Your task to perform on an android device: Search for sushi restaurants on Maps Image 0: 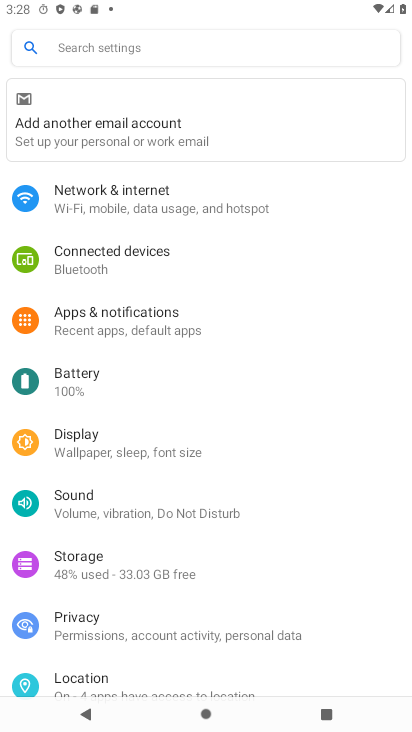
Step 0: press home button
Your task to perform on an android device: Search for sushi restaurants on Maps Image 1: 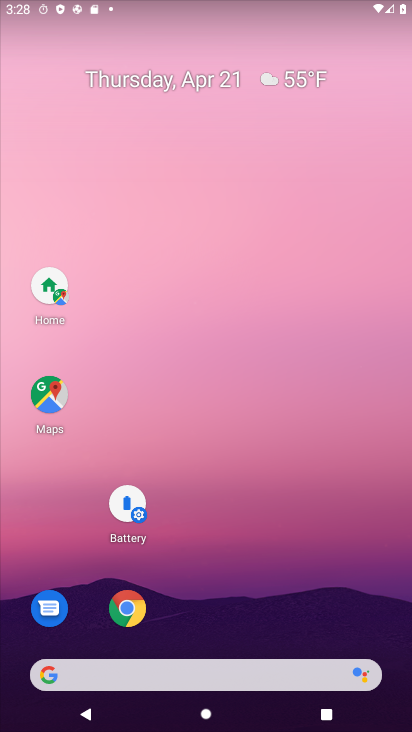
Step 1: click (52, 402)
Your task to perform on an android device: Search for sushi restaurants on Maps Image 2: 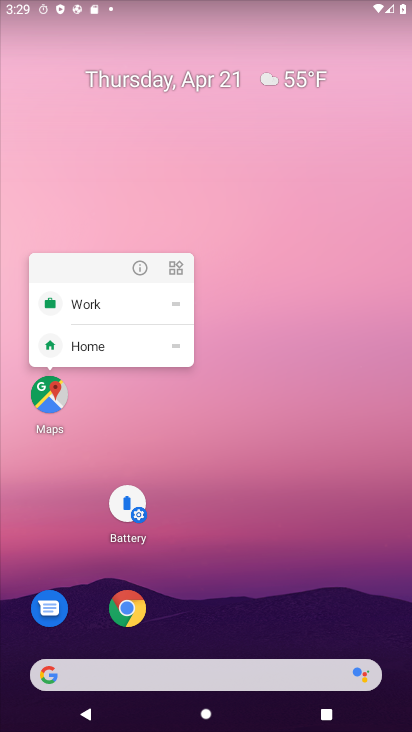
Step 2: click (53, 402)
Your task to perform on an android device: Search for sushi restaurants on Maps Image 3: 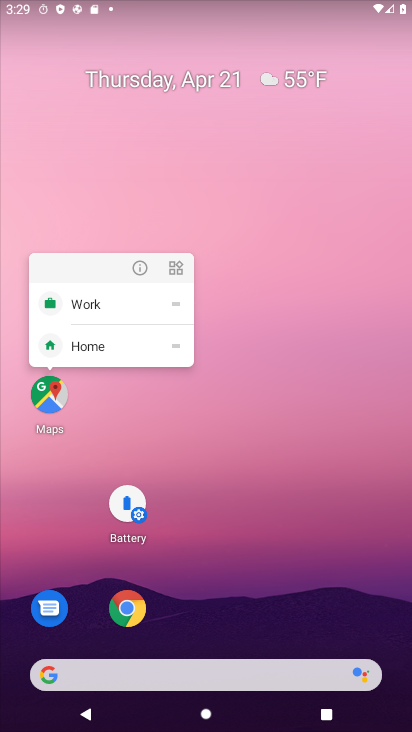
Step 3: click (53, 401)
Your task to perform on an android device: Search for sushi restaurants on Maps Image 4: 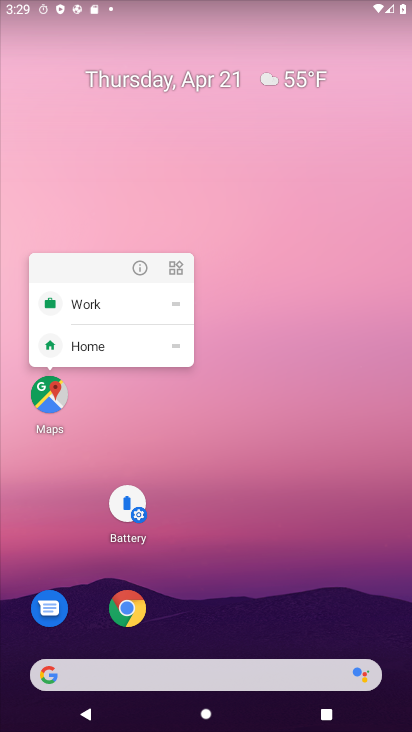
Step 4: click (53, 401)
Your task to perform on an android device: Search for sushi restaurants on Maps Image 5: 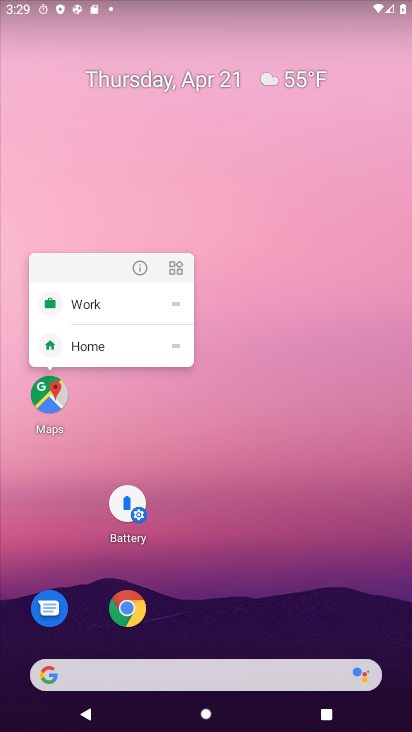
Step 5: click (53, 401)
Your task to perform on an android device: Search for sushi restaurants on Maps Image 6: 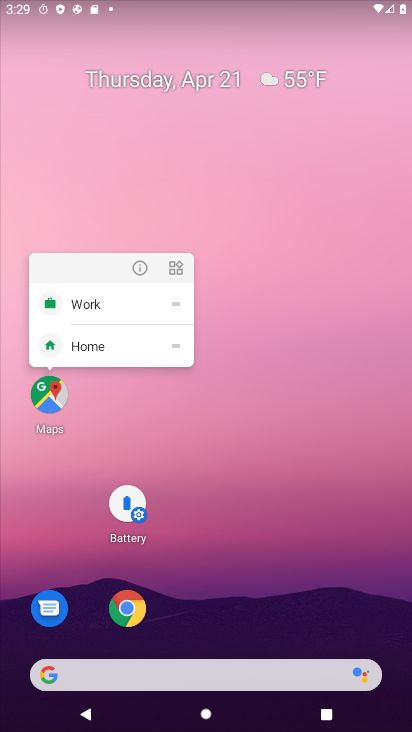
Step 6: click (48, 391)
Your task to perform on an android device: Search for sushi restaurants on Maps Image 7: 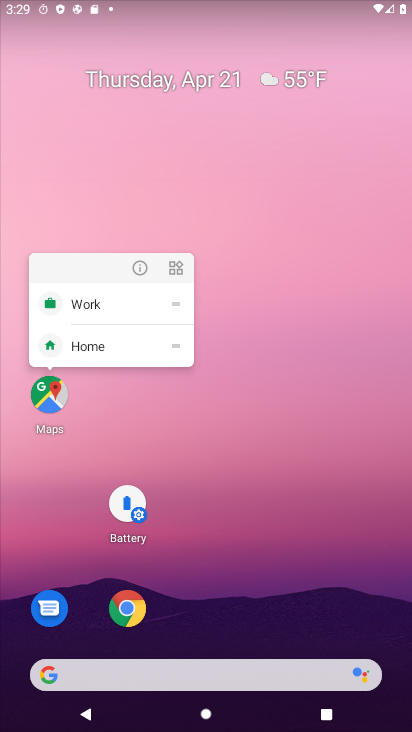
Step 7: click (48, 389)
Your task to perform on an android device: Search for sushi restaurants on Maps Image 8: 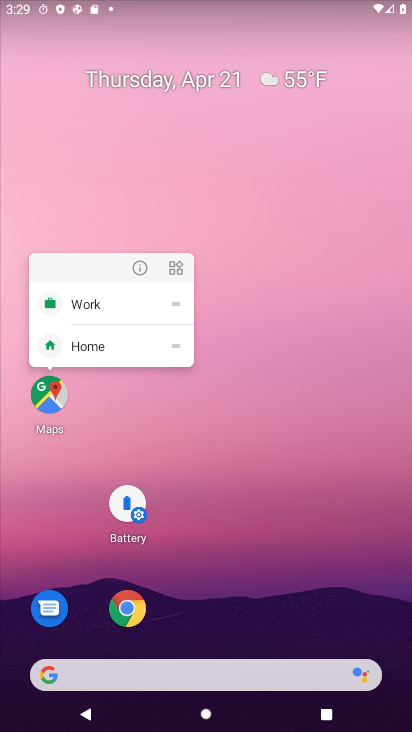
Step 8: click (48, 389)
Your task to perform on an android device: Search for sushi restaurants on Maps Image 9: 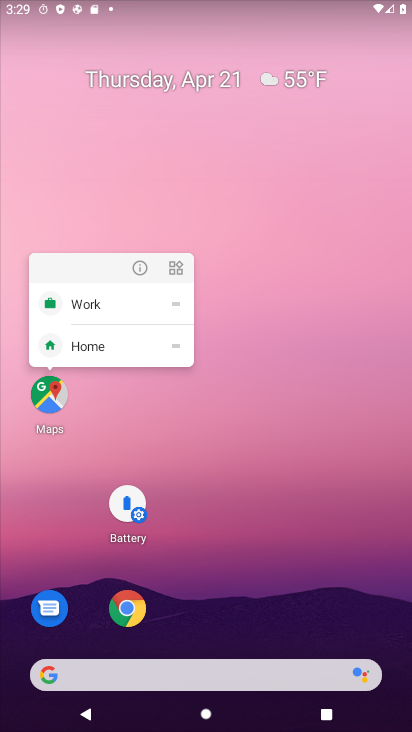
Step 9: click (48, 389)
Your task to perform on an android device: Search for sushi restaurants on Maps Image 10: 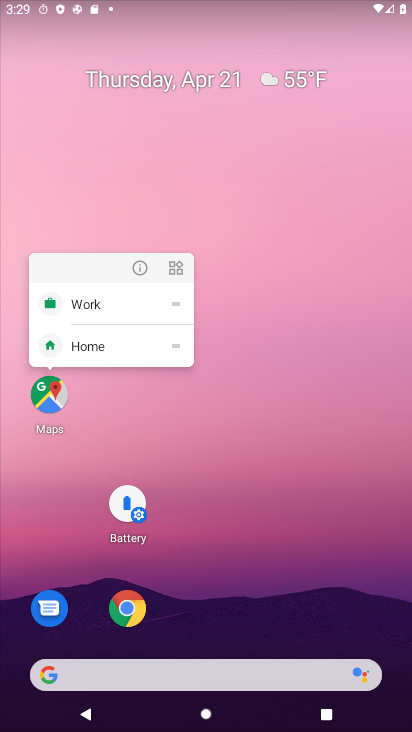
Step 10: click (48, 389)
Your task to perform on an android device: Search for sushi restaurants on Maps Image 11: 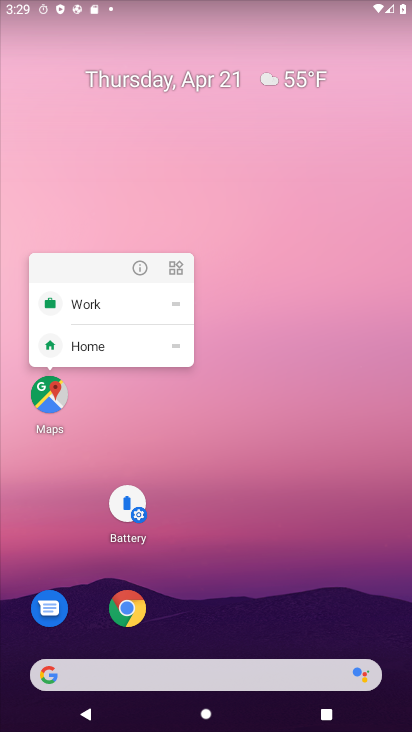
Step 11: click (48, 389)
Your task to perform on an android device: Search for sushi restaurants on Maps Image 12: 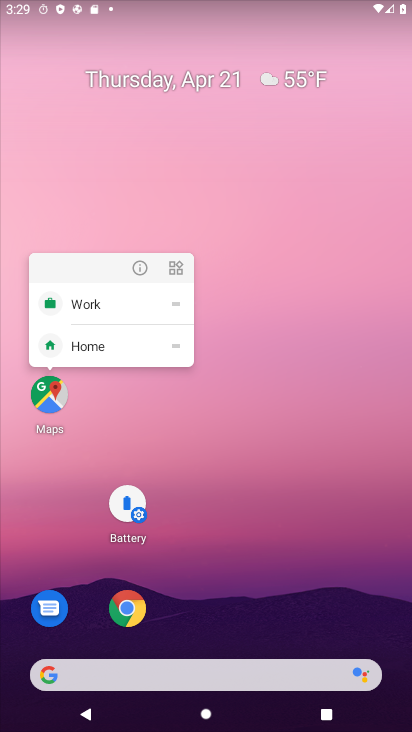
Step 12: click (48, 389)
Your task to perform on an android device: Search for sushi restaurants on Maps Image 13: 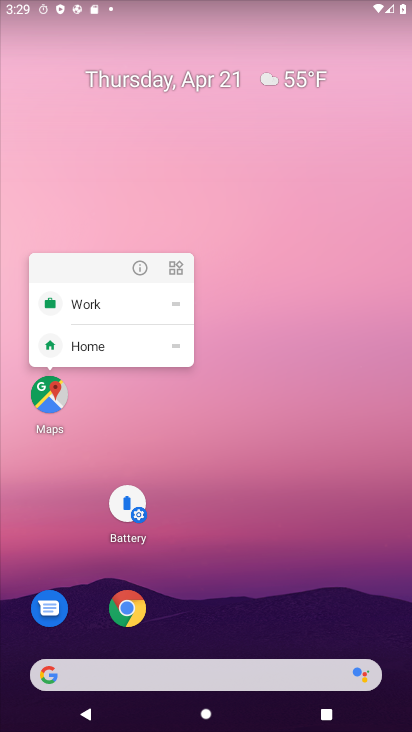
Step 13: click (48, 389)
Your task to perform on an android device: Search for sushi restaurants on Maps Image 14: 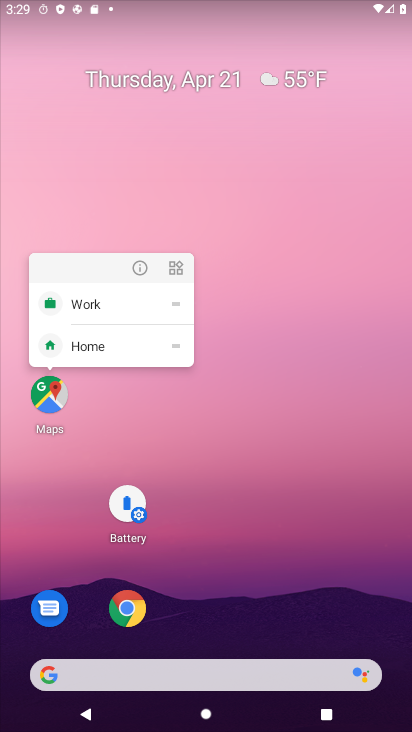
Step 14: click (48, 389)
Your task to perform on an android device: Search for sushi restaurants on Maps Image 15: 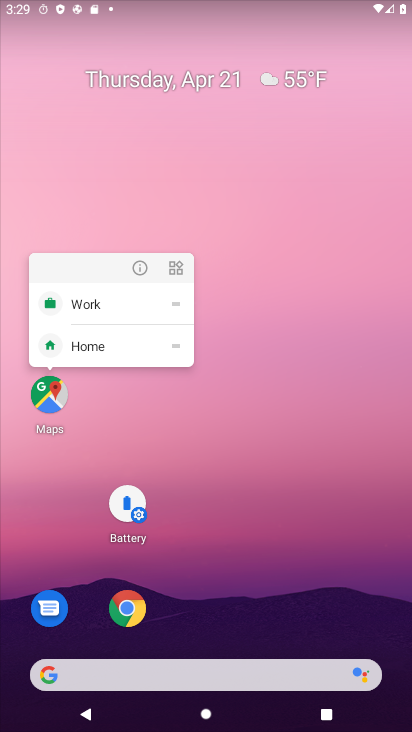
Step 15: click (48, 389)
Your task to perform on an android device: Search for sushi restaurants on Maps Image 16: 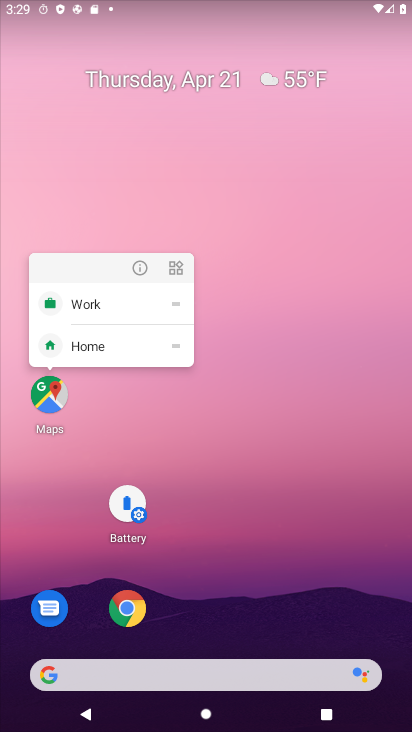
Step 16: click (48, 389)
Your task to perform on an android device: Search for sushi restaurants on Maps Image 17: 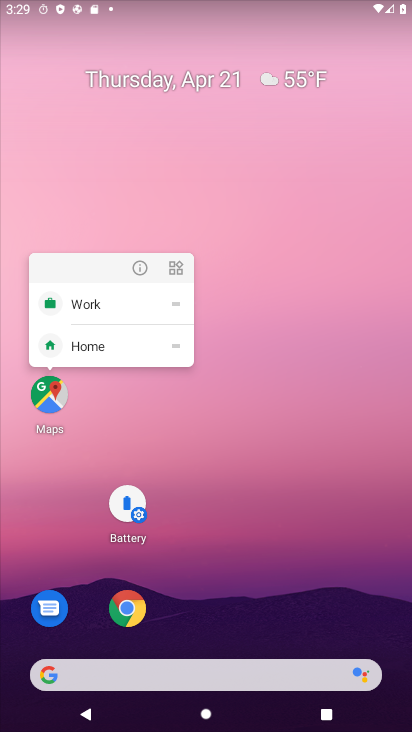
Step 17: click (48, 389)
Your task to perform on an android device: Search for sushi restaurants on Maps Image 18: 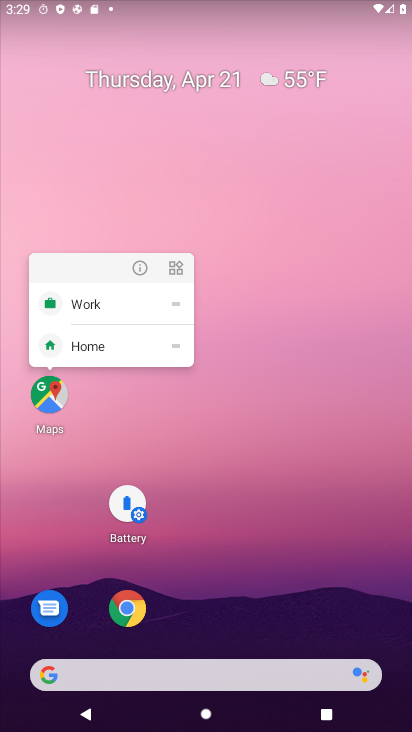
Step 18: click (48, 389)
Your task to perform on an android device: Search for sushi restaurants on Maps Image 19: 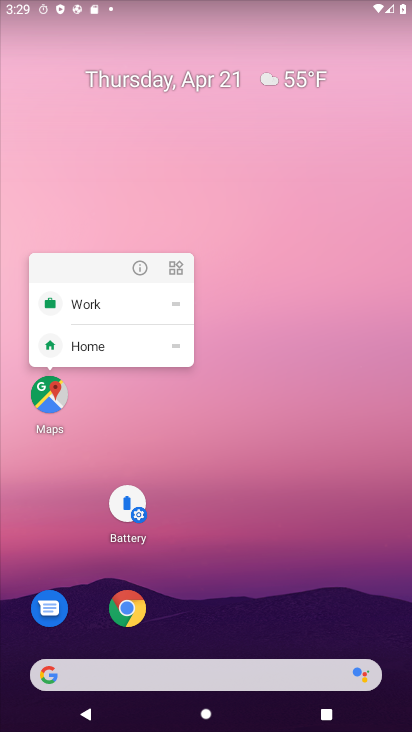
Step 19: click (48, 389)
Your task to perform on an android device: Search for sushi restaurants on Maps Image 20: 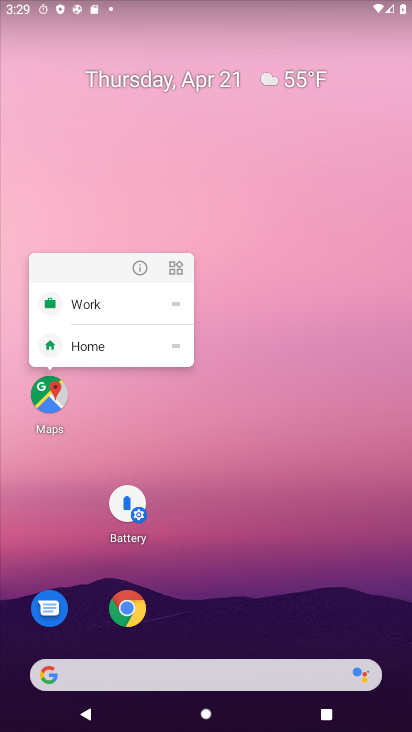
Step 20: click (48, 389)
Your task to perform on an android device: Search for sushi restaurants on Maps Image 21: 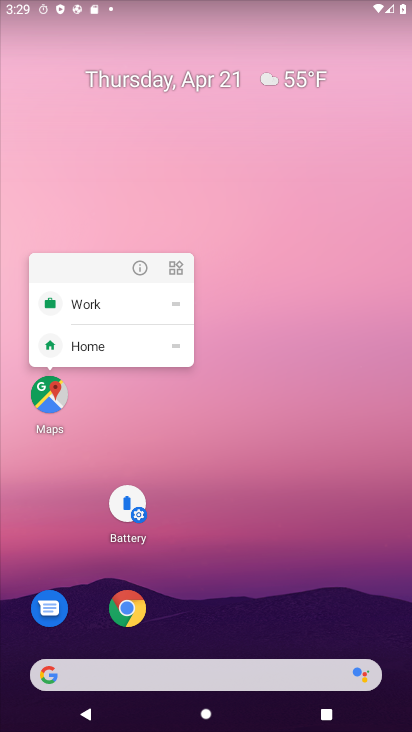
Step 21: click (57, 386)
Your task to perform on an android device: Search for sushi restaurants on Maps Image 22: 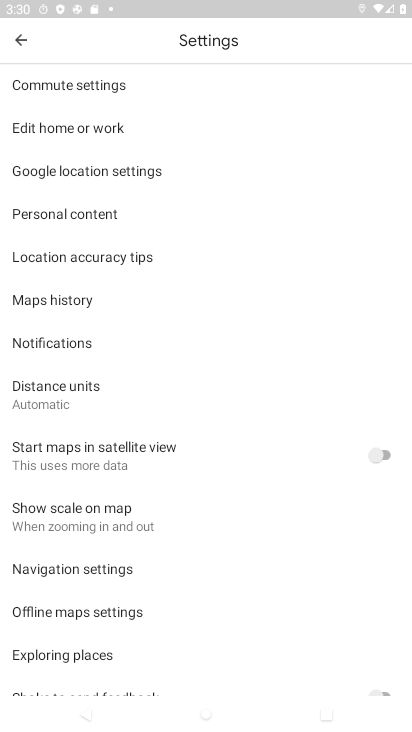
Step 22: click (26, 38)
Your task to perform on an android device: Search for sushi restaurants on Maps Image 23: 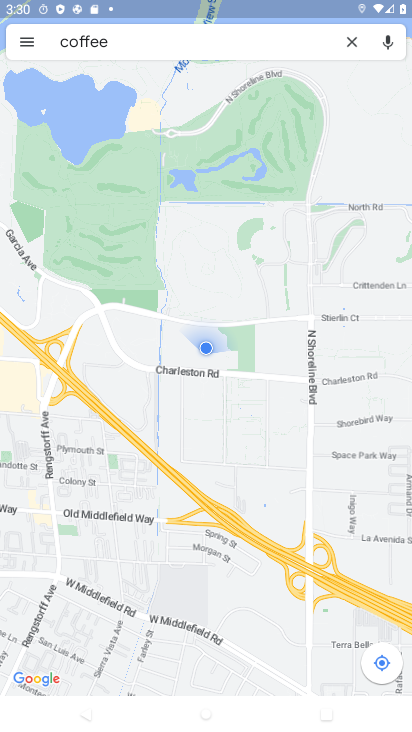
Step 23: click (349, 39)
Your task to perform on an android device: Search for sushi restaurants on Maps Image 24: 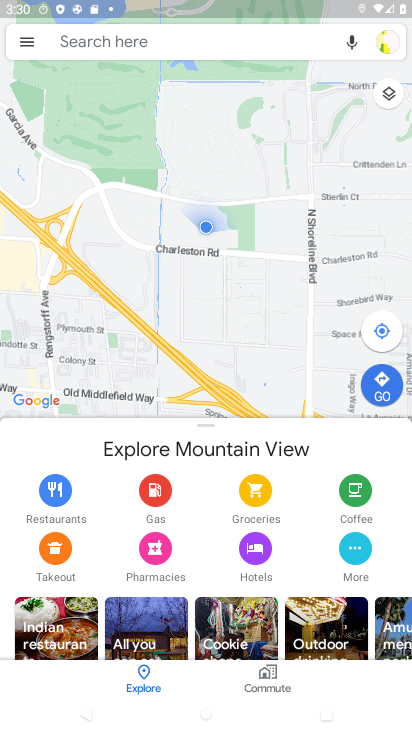
Step 24: click (271, 31)
Your task to perform on an android device: Search for sushi restaurants on Maps Image 25: 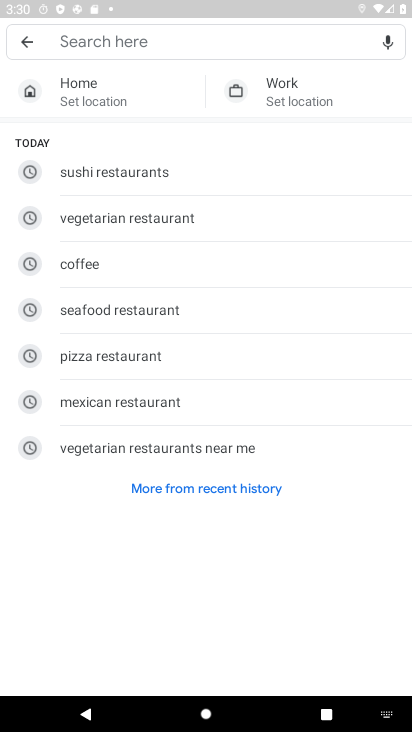
Step 25: click (69, 164)
Your task to perform on an android device: Search for sushi restaurants on Maps Image 26: 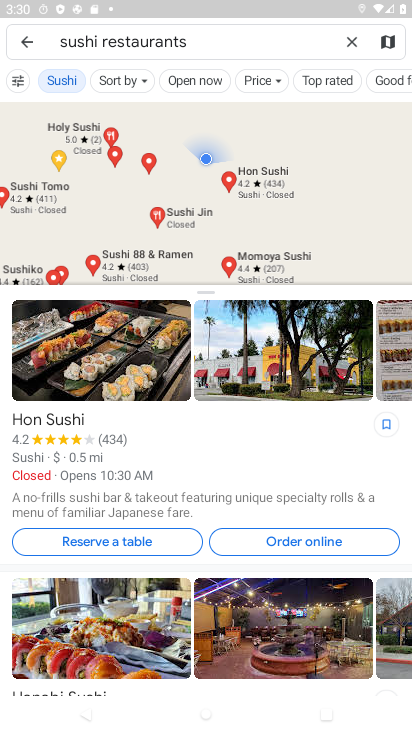
Step 26: task complete